Your task to perform on an android device: When is my next appointment? Image 0: 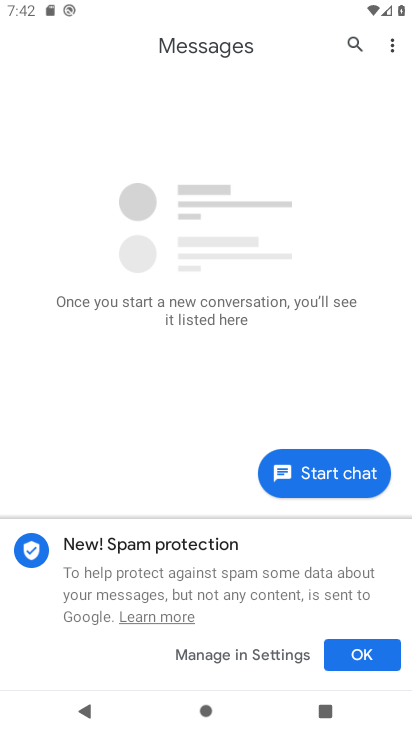
Step 0: press home button
Your task to perform on an android device: When is my next appointment? Image 1: 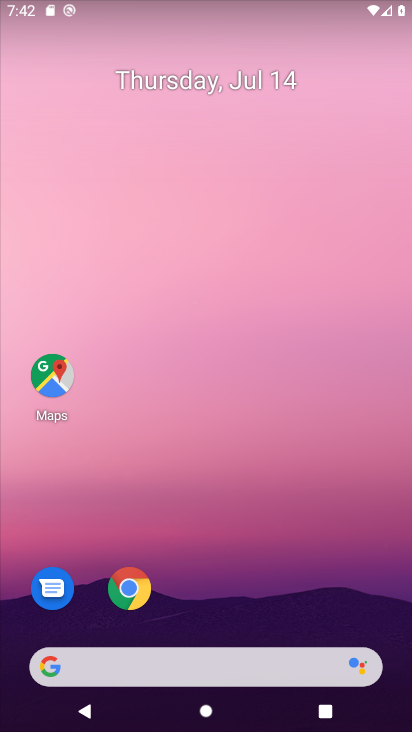
Step 1: drag from (211, 600) to (147, 114)
Your task to perform on an android device: When is my next appointment? Image 2: 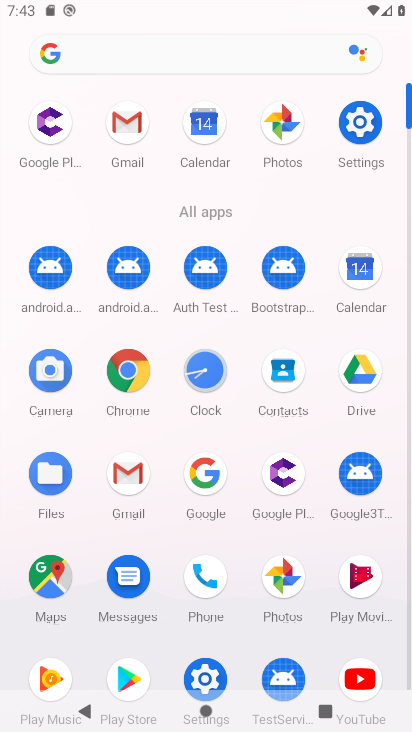
Step 2: click (355, 281)
Your task to perform on an android device: When is my next appointment? Image 3: 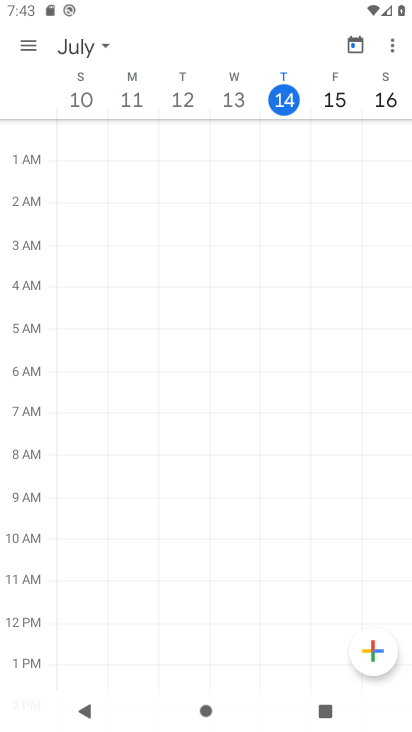
Step 3: task complete